Your task to perform on an android device: What's the weather today? Image 0: 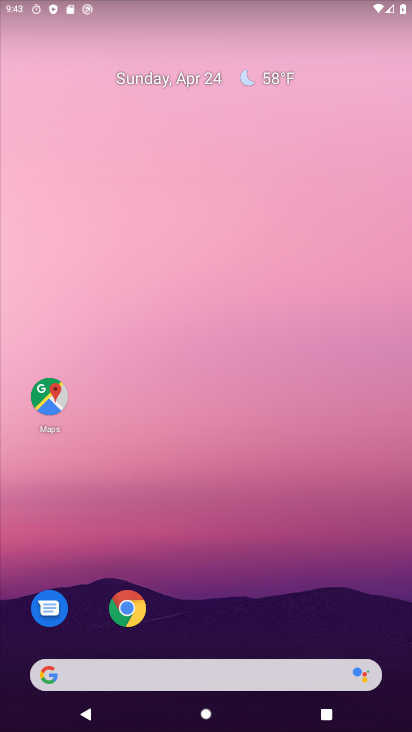
Step 0: click (216, 673)
Your task to perform on an android device: What's the weather today? Image 1: 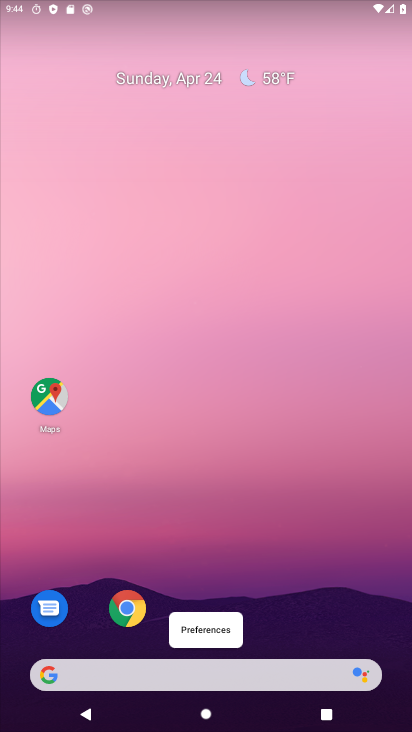
Step 1: click (234, 673)
Your task to perform on an android device: What's the weather today? Image 2: 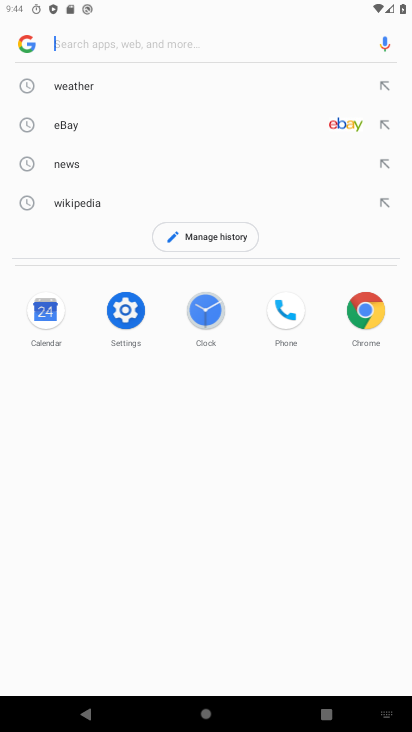
Step 2: click (136, 77)
Your task to perform on an android device: What's the weather today? Image 3: 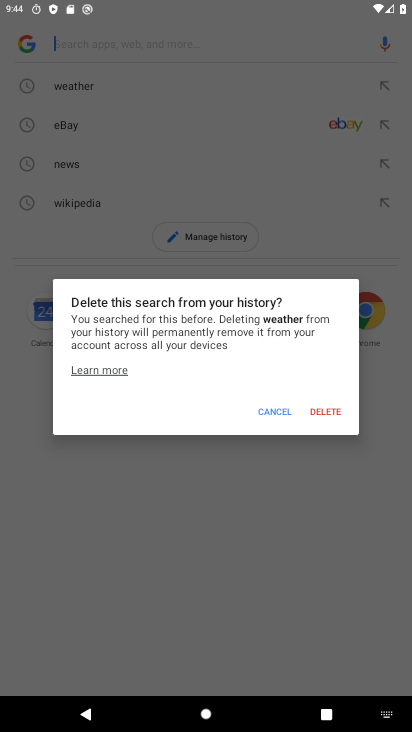
Step 3: click (264, 405)
Your task to perform on an android device: What's the weather today? Image 4: 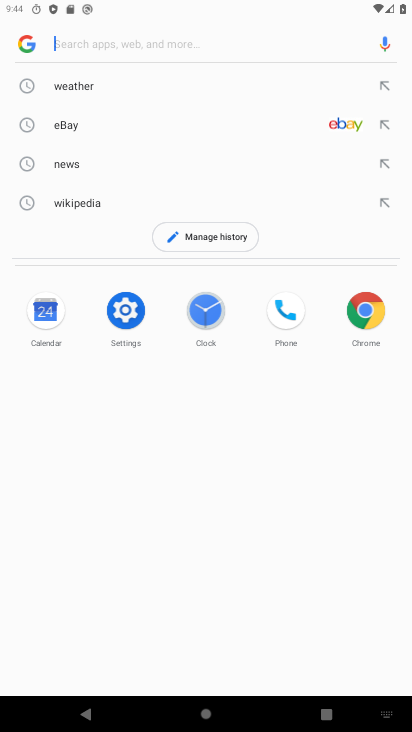
Step 4: click (128, 85)
Your task to perform on an android device: What's the weather today? Image 5: 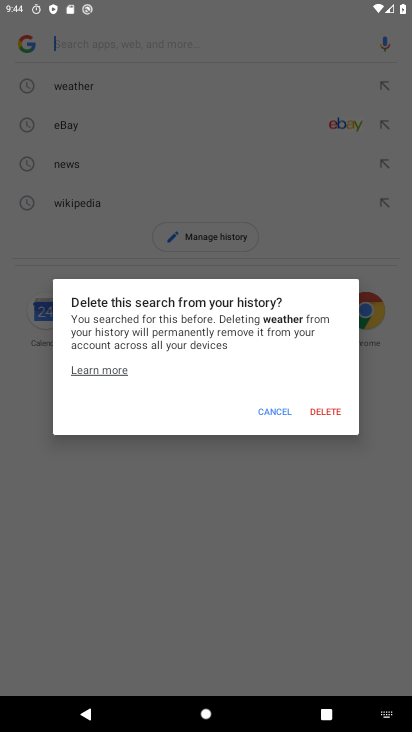
Step 5: click (260, 409)
Your task to perform on an android device: What's the weather today? Image 6: 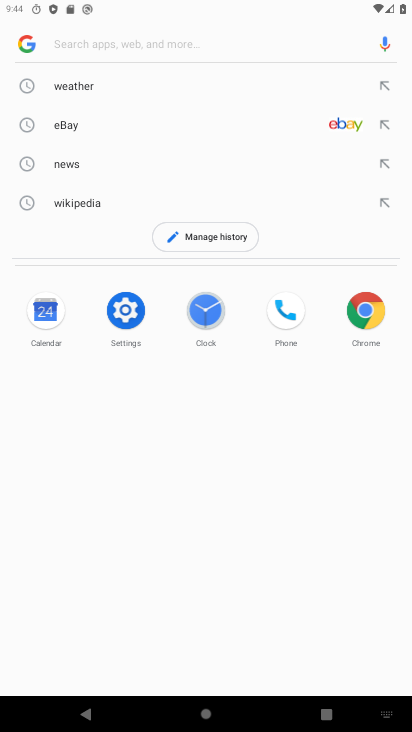
Step 6: click (115, 90)
Your task to perform on an android device: What's the weather today? Image 7: 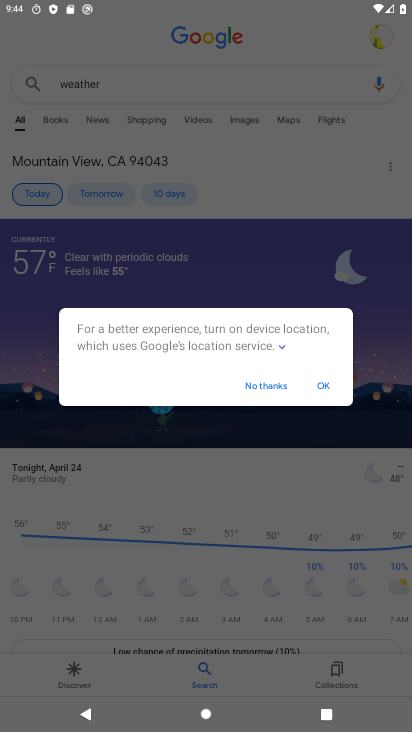
Step 7: task complete